Your task to perform on an android device: toggle data saver in the chrome app Image 0: 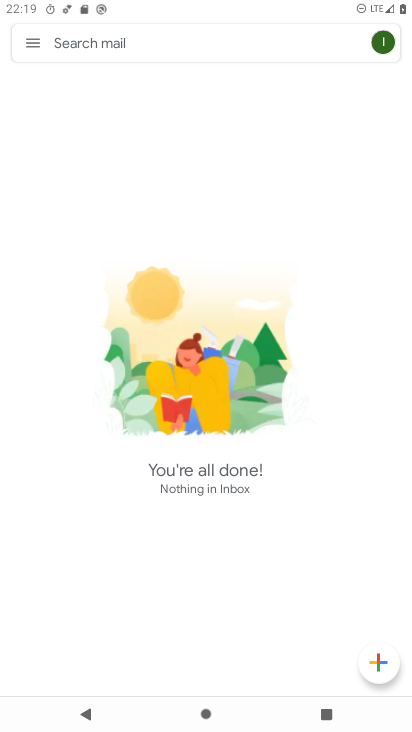
Step 0: press back button
Your task to perform on an android device: toggle data saver in the chrome app Image 1: 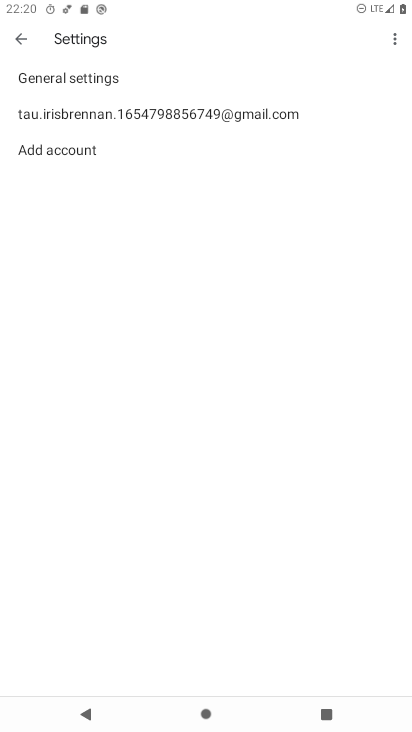
Step 1: press home button
Your task to perform on an android device: toggle data saver in the chrome app Image 2: 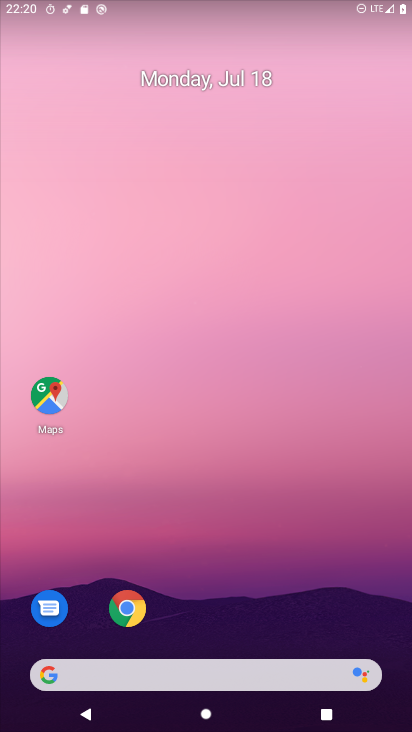
Step 2: click (123, 615)
Your task to perform on an android device: toggle data saver in the chrome app Image 3: 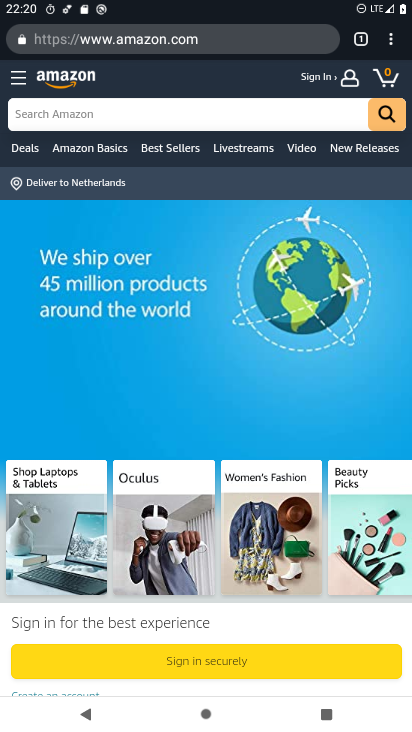
Step 3: click (389, 48)
Your task to perform on an android device: toggle data saver in the chrome app Image 4: 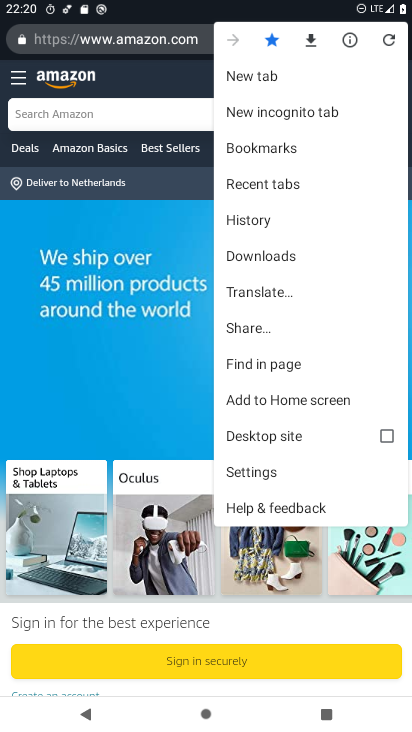
Step 4: click (241, 471)
Your task to perform on an android device: toggle data saver in the chrome app Image 5: 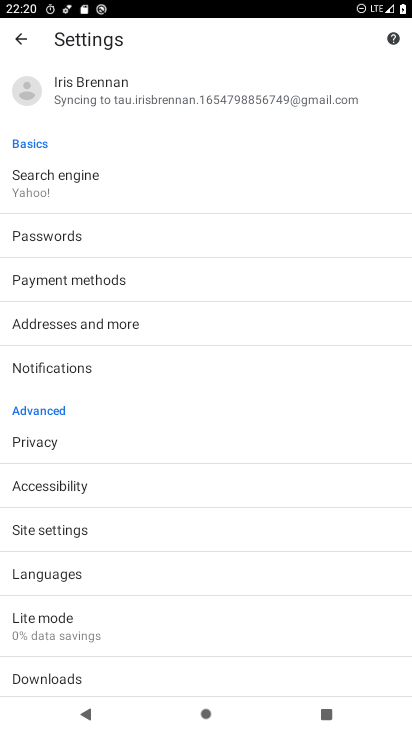
Step 5: click (47, 583)
Your task to perform on an android device: toggle data saver in the chrome app Image 6: 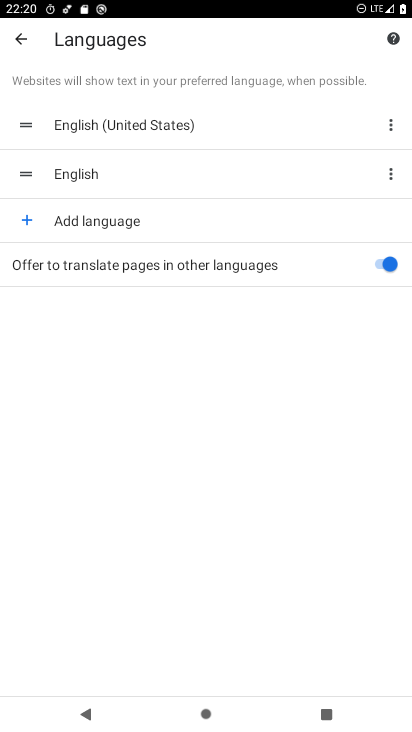
Step 6: click (382, 258)
Your task to perform on an android device: toggle data saver in the chrome app Image 7: 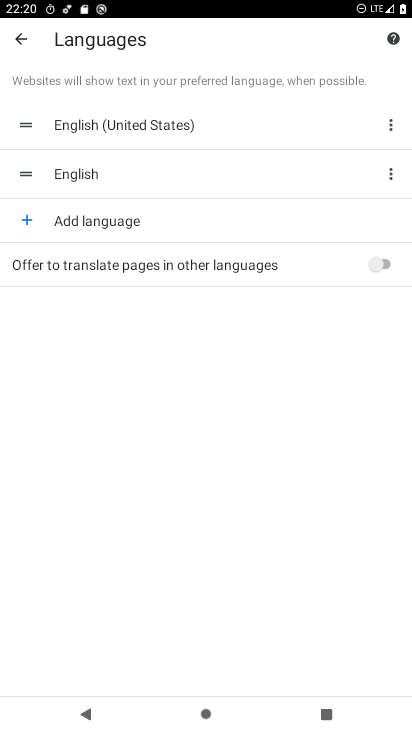
Step 7: task complete